Your task to perform on an android device: Open Reddit.com Image 0: 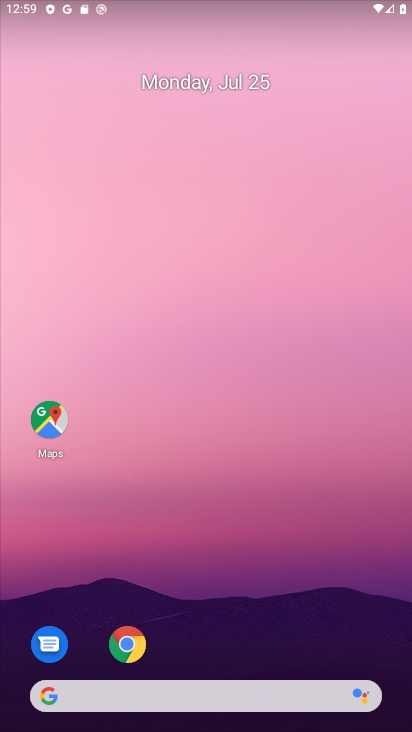
Step 0: click (120, 653)
Your task to perform on an android device: Open Reddit.com Image 1: 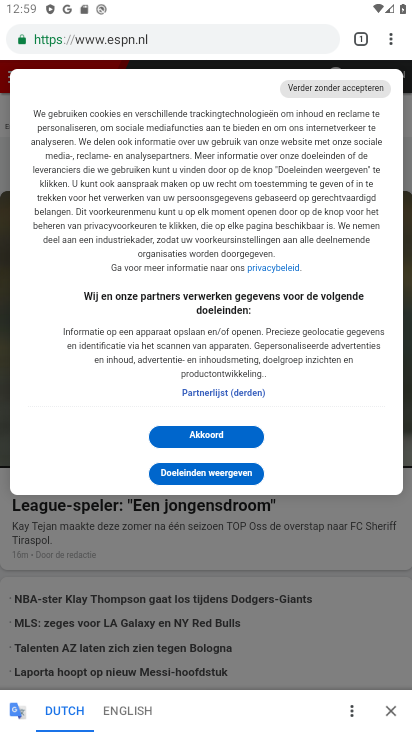
Step 1: click (170, 33)
Your task to perform on an android device: Open Reddit.com Image 2: 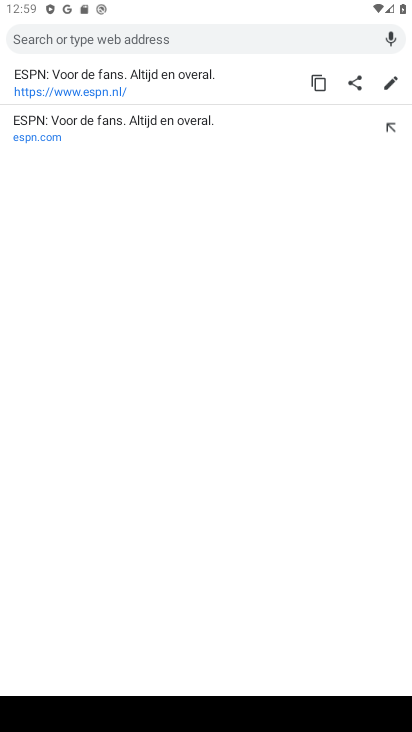
Step 2: type "Reddit.com"
Your task to perform on an android device: Open Reddit.com Image 3: 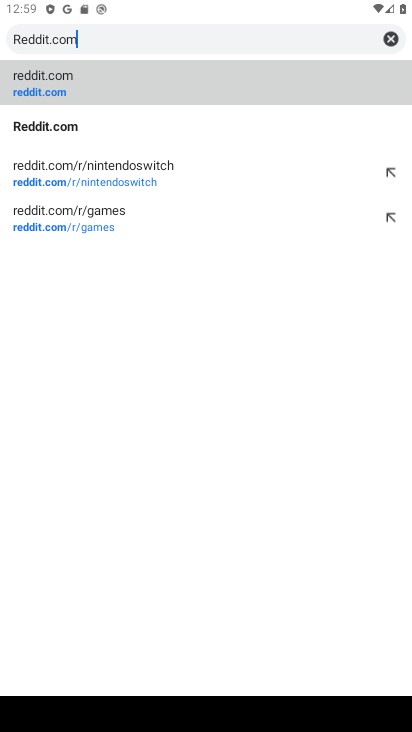
Step 3: click (211, 80)
Your task to perform on an android device: Open Reddit.com Image 4: 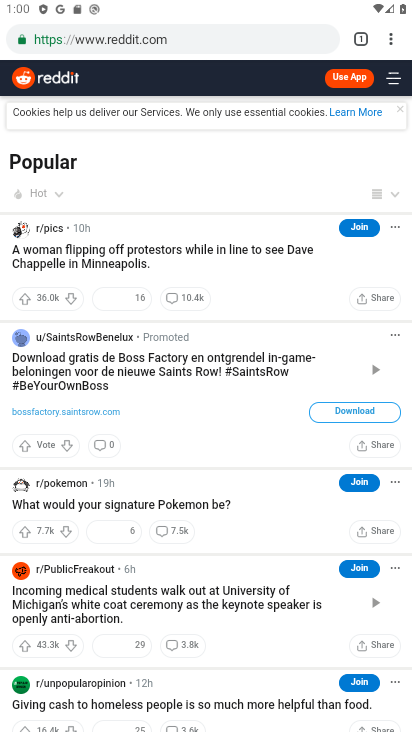
Step 4: task complete